Your task to perform on an android device: toggle priority inbox in the gmail app Image 0: 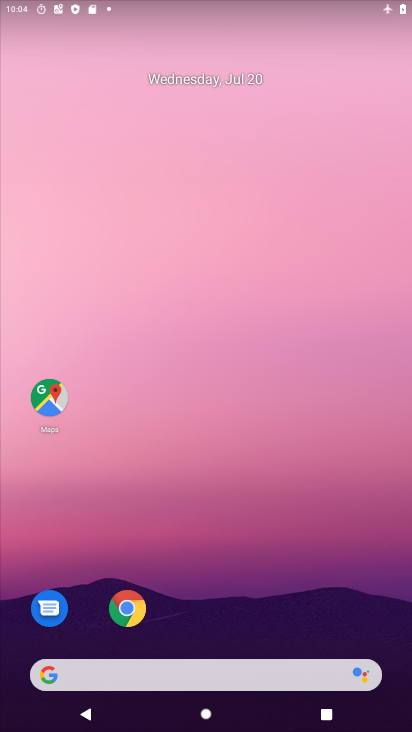
Step 0: drag from (256, 707) to (336, 52)
Your task to perform on an android device: toggle priority inbox in the gmail app Image 1: 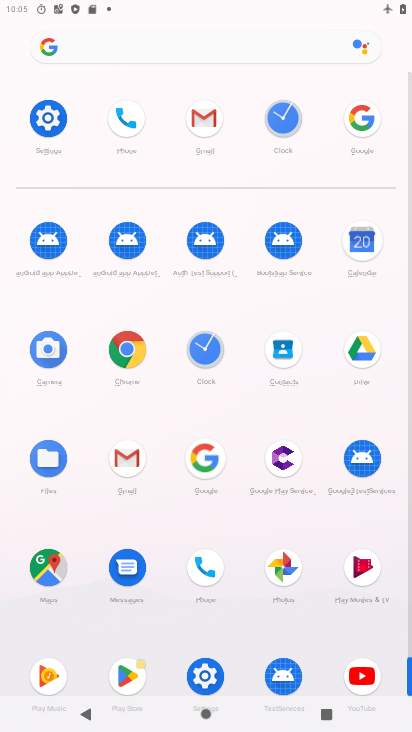
Step 1: click (184, 126)
Your task to perform on an android device: toggle priority inbox in the gmail app Image 2: 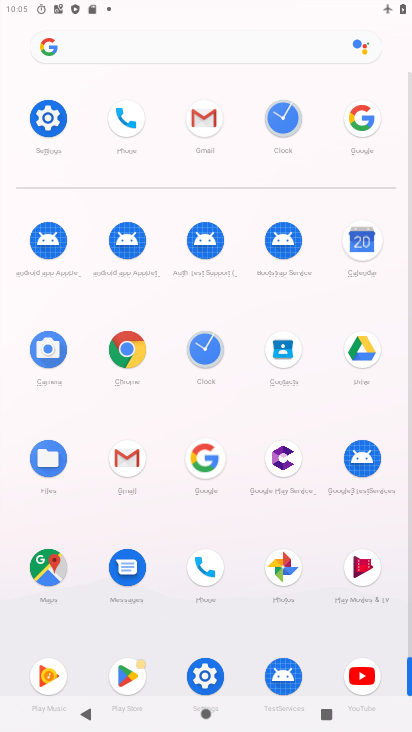
Step 2: click (184, 126)
Your task to perform on an android device: toggle priority inbox in the gmail app Image 3: 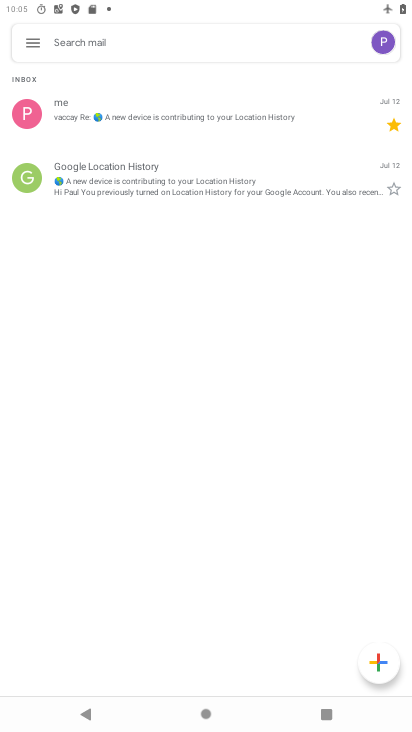
Step 3: click (36, 45)
Your task to perform on an android device: toggle priority inbox in the gmail app Image 4: 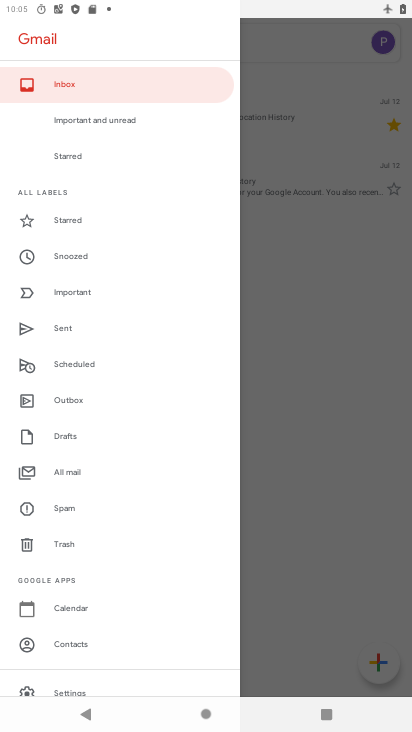
Step 4: click (80, 689)
Your task to perform on an android device: toggle priority inbox in the gmail app Image 5: 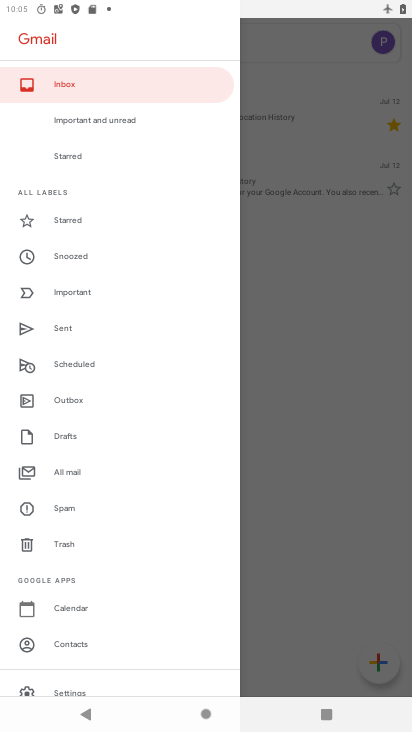
Step 5: click (80, 689)
Your task to perform on an android device: toggle priority inbox in the gmail app Image 6: 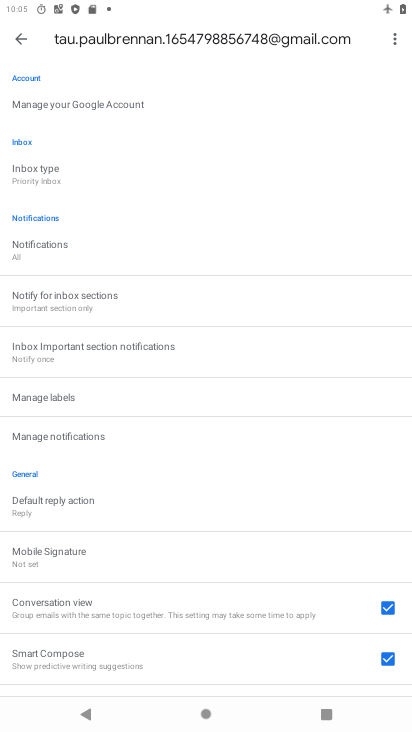
Step 6: click (55, 172)
Your task to perform on an android device: toggle priority inbox in the gmail app Image 7: 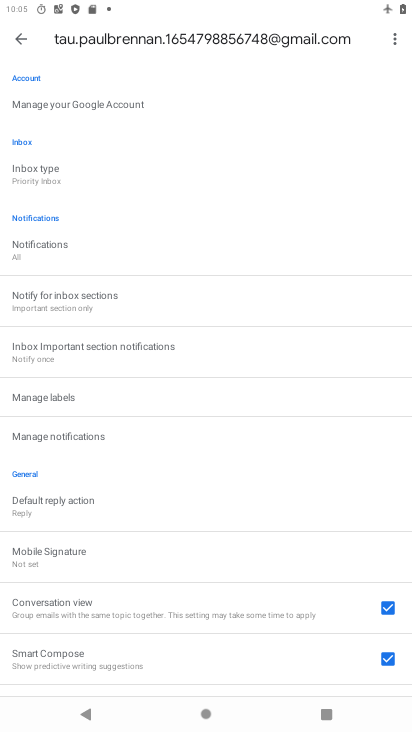
Step 7: click (55, 172)
Your task to perform on an android device: toggle priority inbox in the gmail app Image 8: 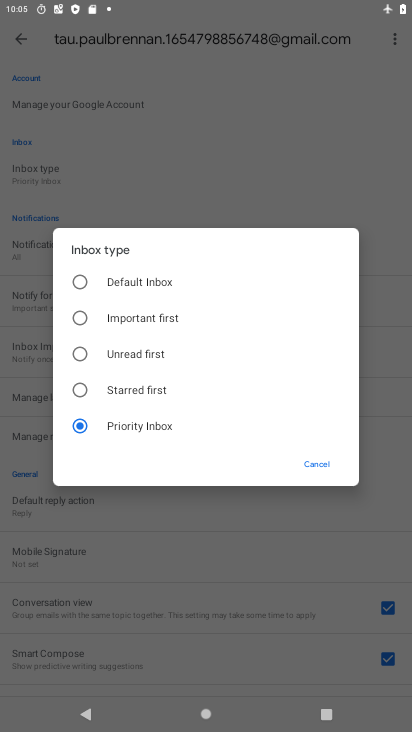
Step 8: click (77, 280)
Your task to perform on an android device: toggle priority inbox in the gmail app Image 9: 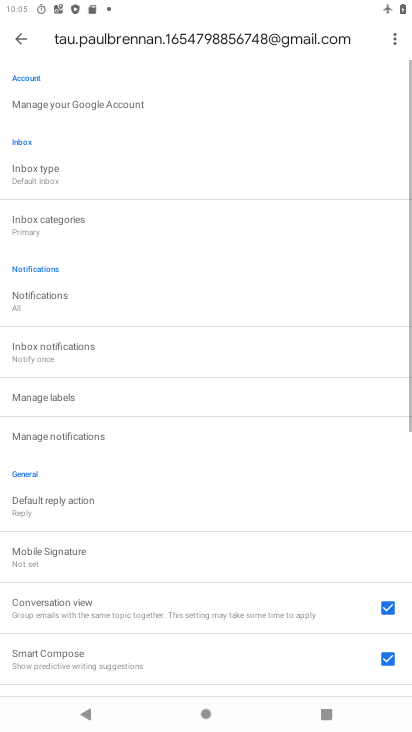
Step 9: task complete